Your task to perform on an android device: uninstall "Firefox Browser" Image 0: 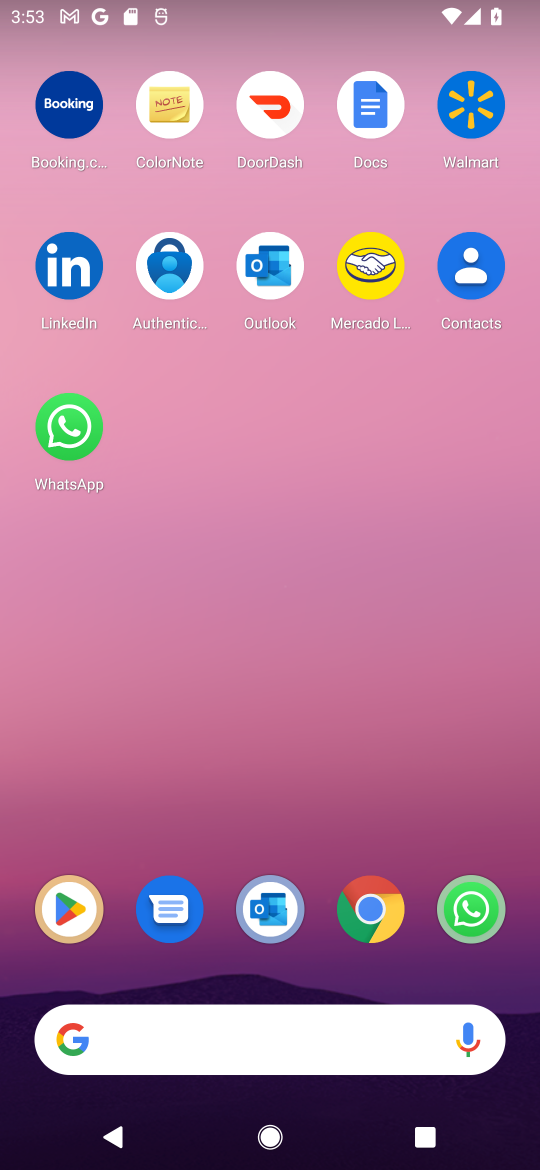
Step 0: click (76, 911)
Your task to perform on an android device: uninstall "Firefox Browser" Image 1: 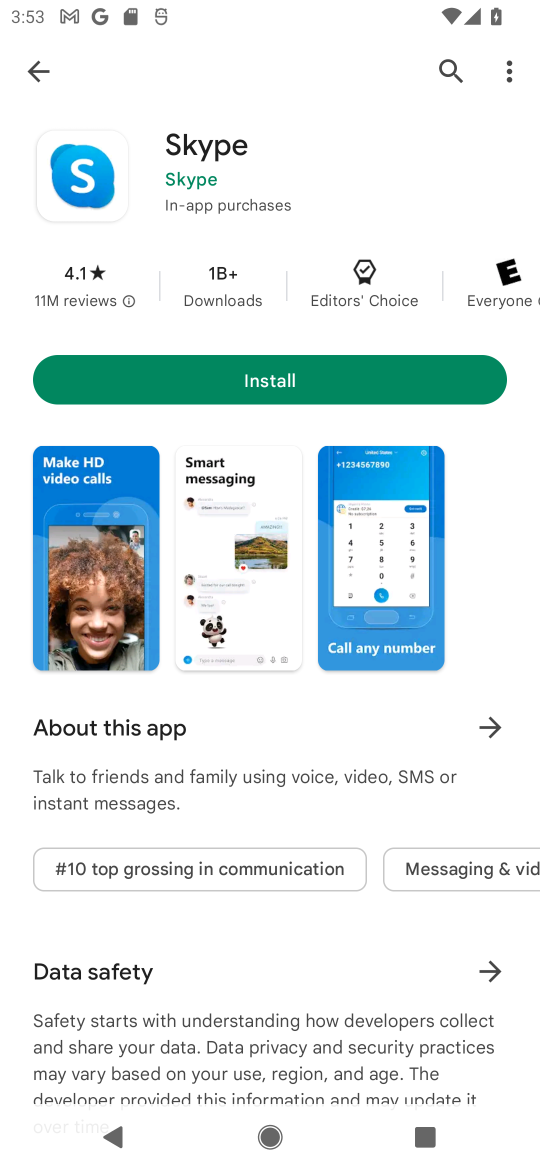
Step 1: click (444, 74)
Your task to perform on an android device: uninstall "Firefox Browser" Image 2: 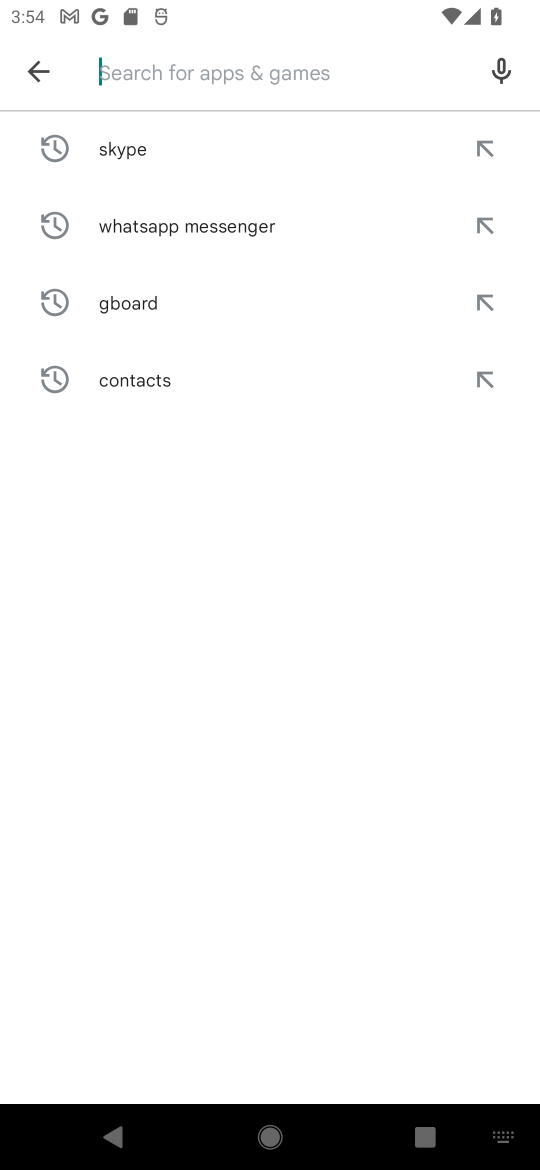
Step 2: type "Firefox Browser"
Your task to perform on an android device: uninstall "Firefox Browser" Image 3: 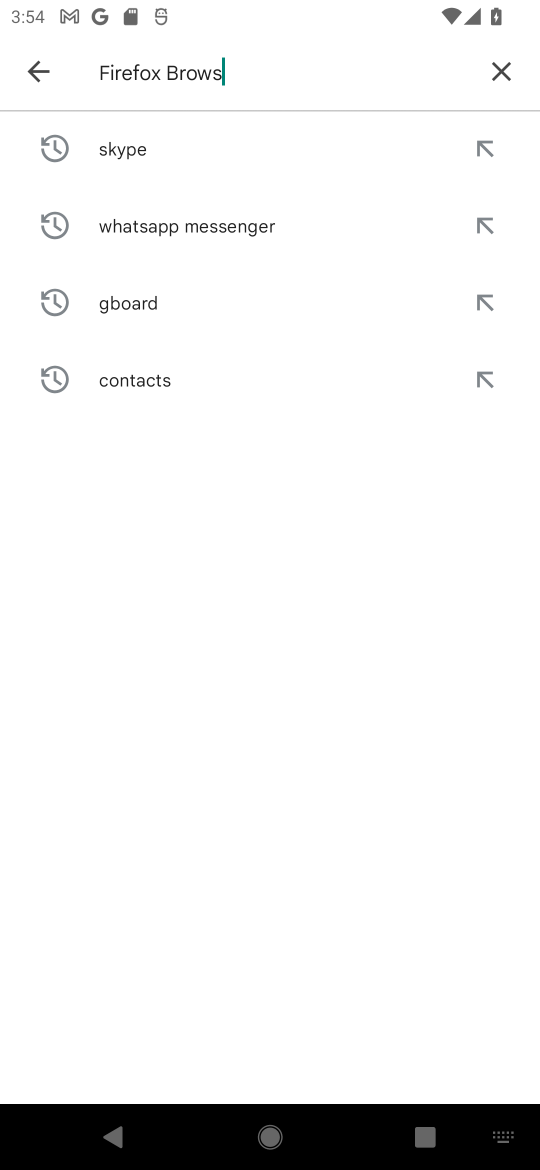
Step 3: type ""
Your task to perform on an android device: uninstall "Firefox Browser" Image 4: 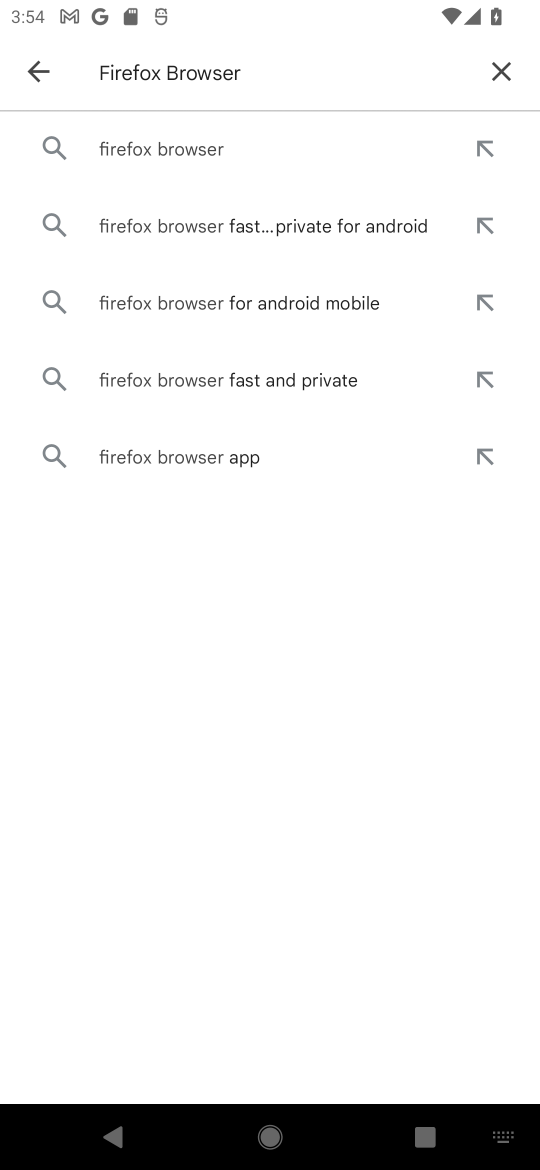
Step 4: click (233, 156)
Your task to perform on an android device: uninstall "Firefox Browser" Image 5: 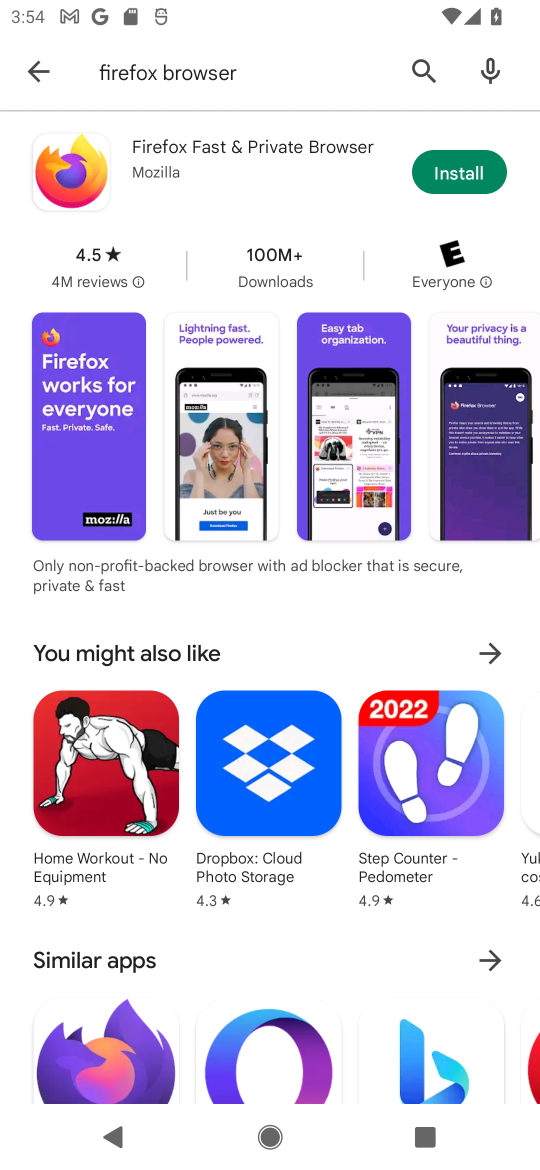
Step 5: click (247, 148)
Your task to perform on an android device: uninstall "Firefox Browser" Image 6: 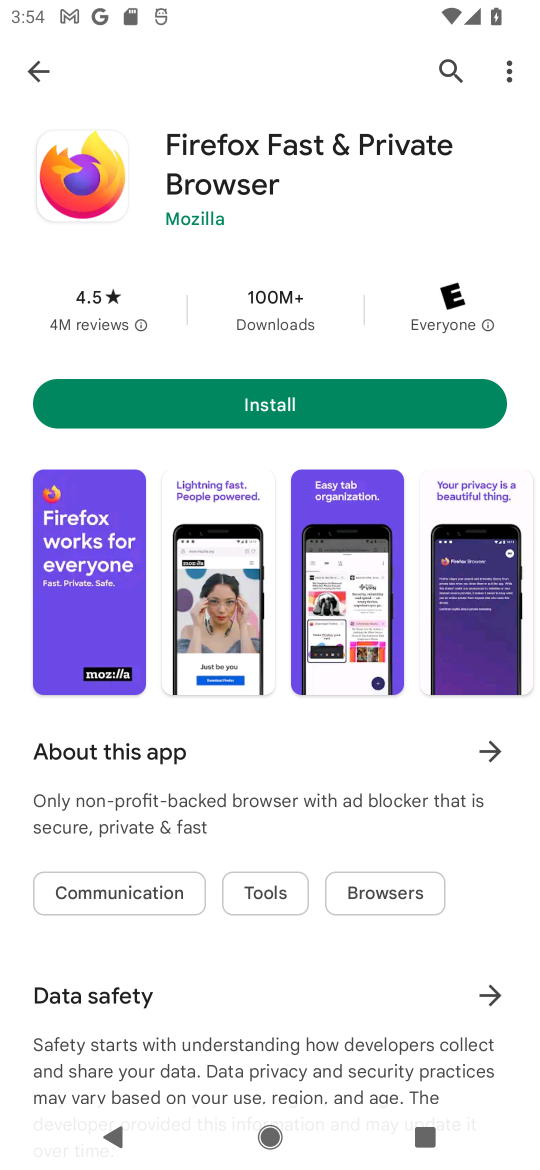
Step 6: task complete